Your task to perform on an android device: Go to Yahoo.com Image 0: 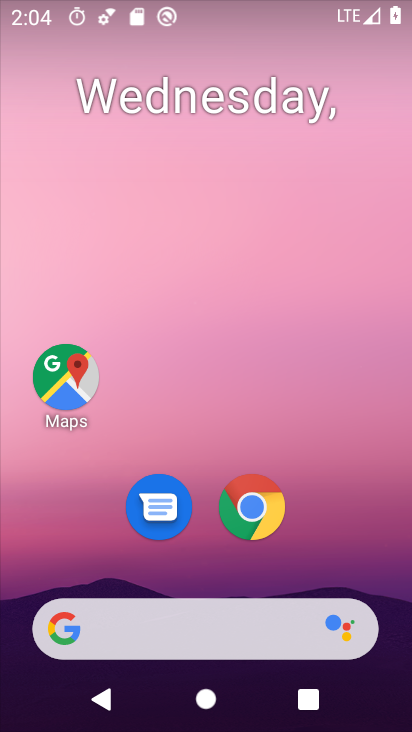
Step 0: click (256, 516)
Your task to perform on an android device: Go to Yahoo.com Image 1: 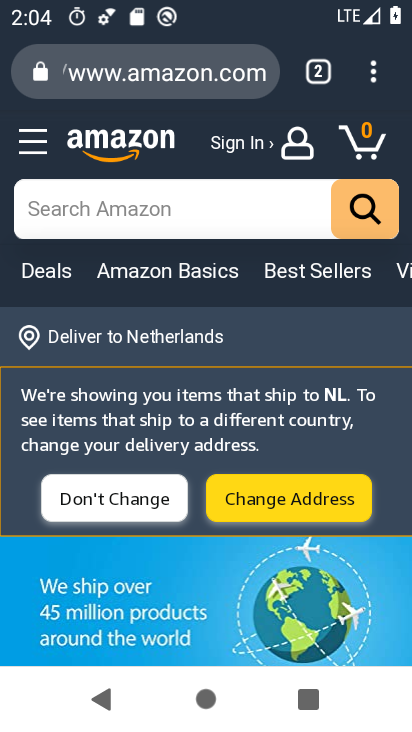
Step 1: click (118, 79)
Your task to perform on an android device: Go to Yahoo.com Image 2: 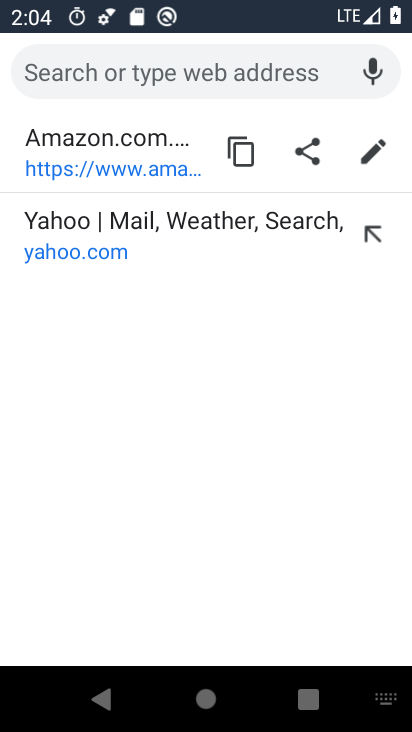
Step 2: type "yahoo.com"
Your task to perform on an android device: Go to Yahoo.com Image 3: 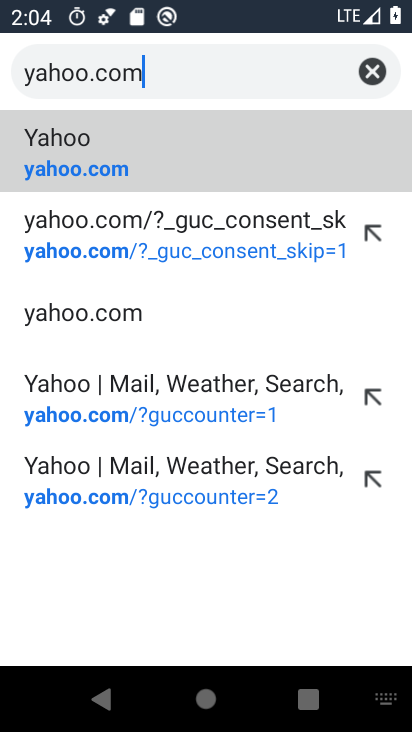
Step 3: click (35, 148)
Your task to perform on an android device: Go to Yahoo.com Image 4: 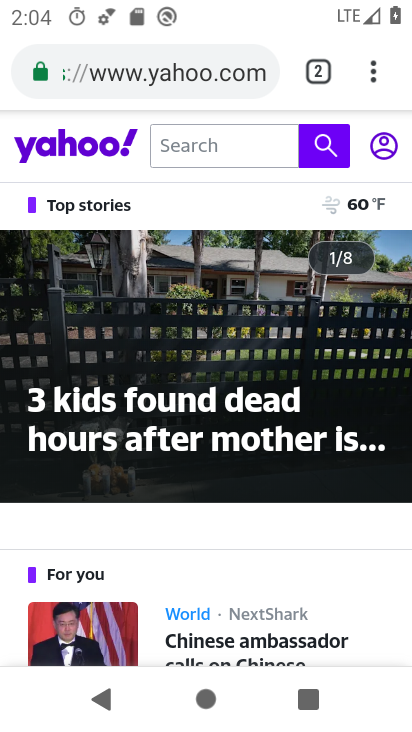
Step 4: task complete